Your task to perform on an android device: turn off airplane mode Image 0: 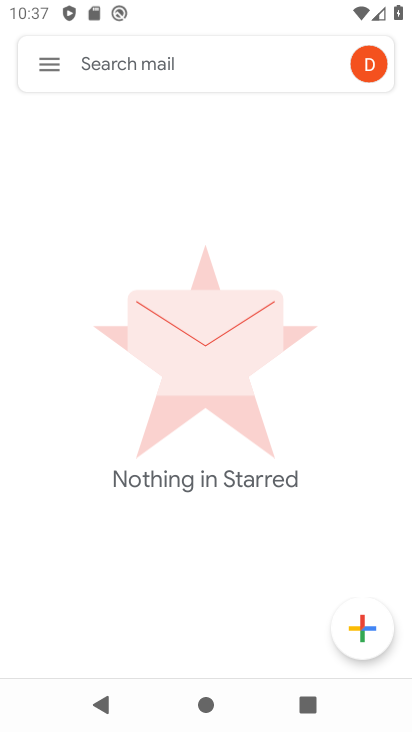
Step 0: press home button
Your task to perform on an android device: turn off airplane mode Image 1: 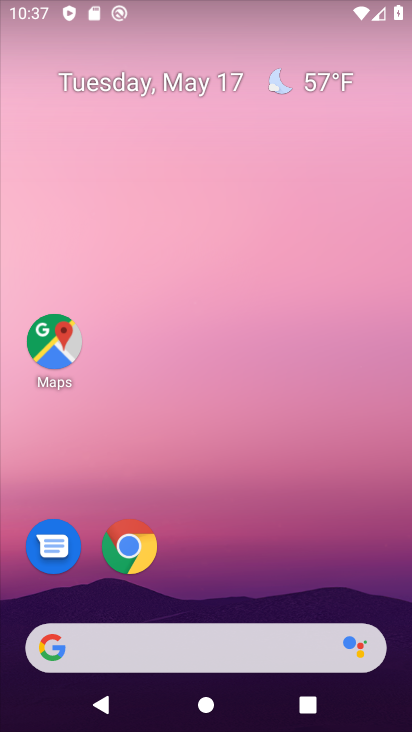
Step 1: drag from (315, 526) to (300, 129)
Your task to perform on an android device: turn off airplane mode Image 2: 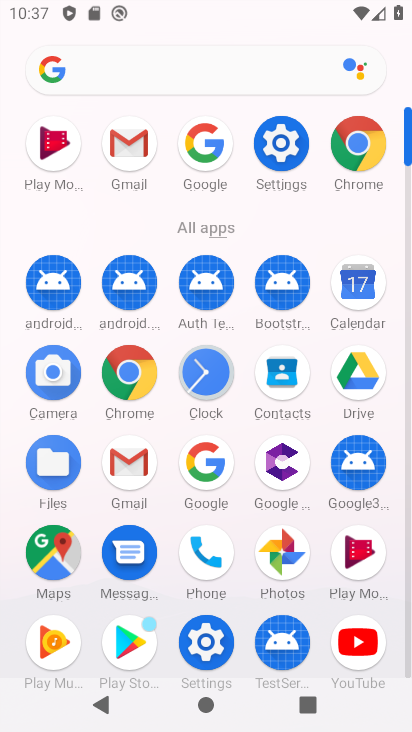
Step 2: click (294, 153)
Your task to perform on an android device: turn off airplane mode Image 3: 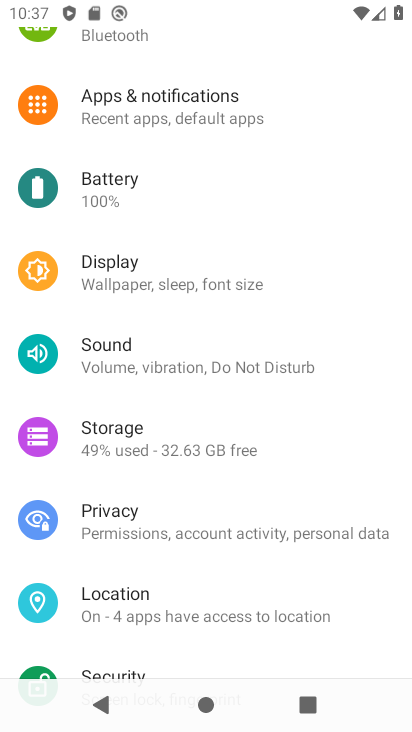
Step 3: drag from (289, 134) to (285, 433)
Your task to perform on an android device: turn off airplane mode Image 4: 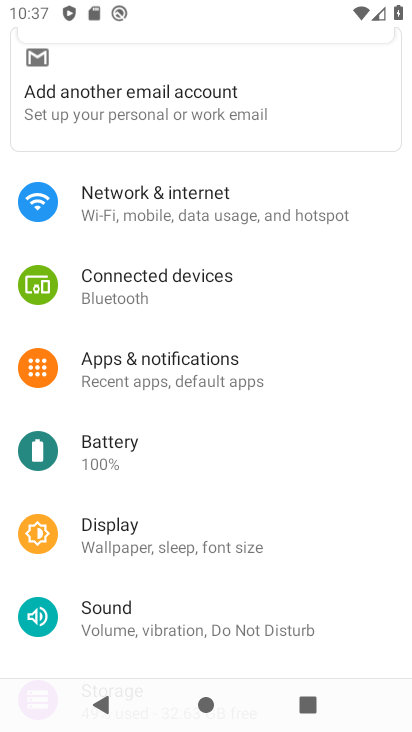
Step 4: click (262, 228)
Your task to perform on an android device: turn off airplane mode Image 5: 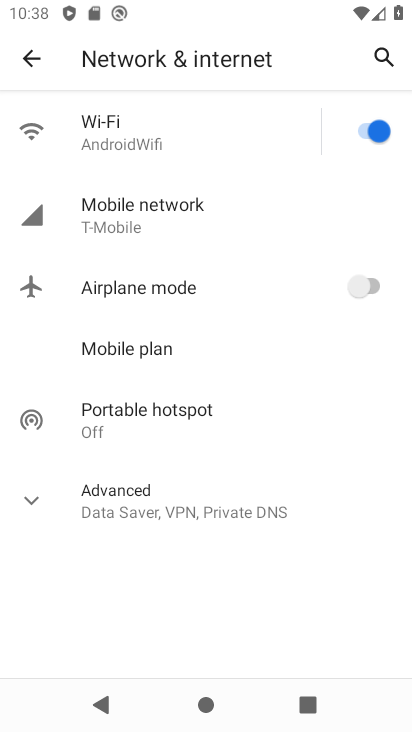
Step 5: task complete